Your task to perform on an android device: Go to location settings Image 0: 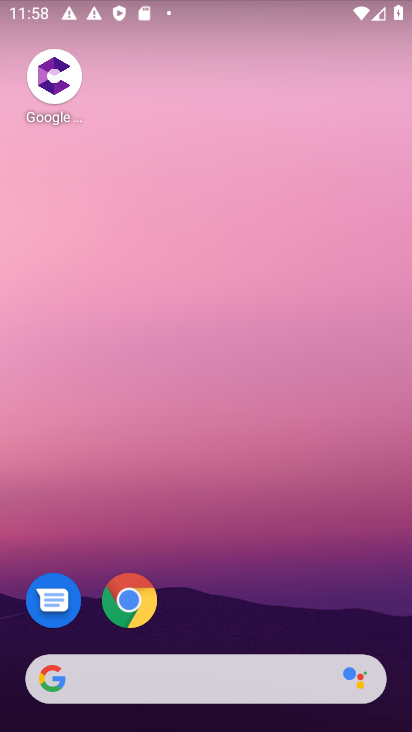
Step 0: drag from (204, 496) to (219, 156)
Your task to perform on an android device: Go to location settings Image 1: 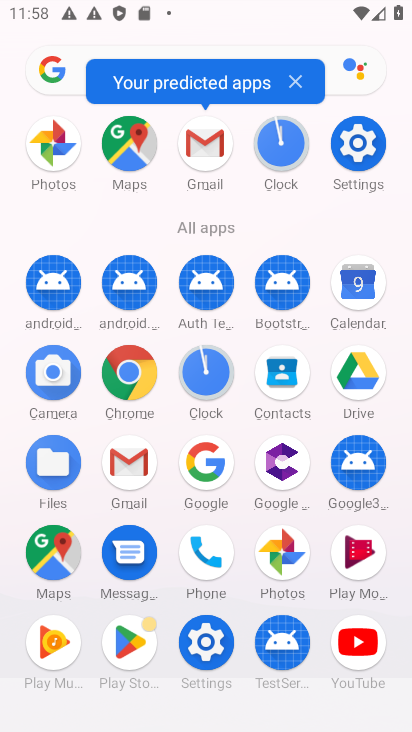
Step 1: click (364, 158)
Your task to perform on an android device: Go to location settings Image 2: 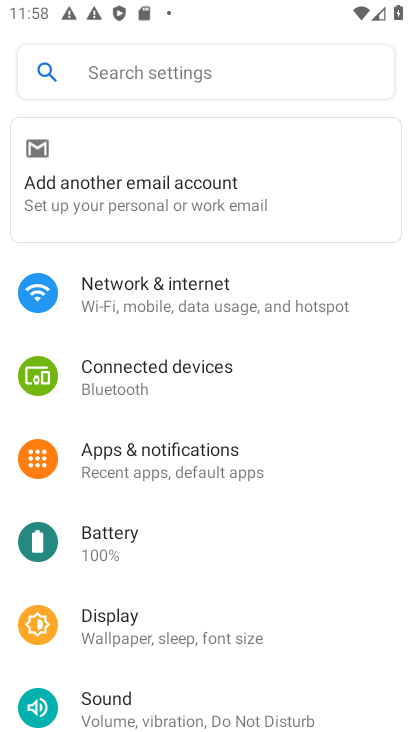
Step 2: task complete